Your task to perform on an android device: find snoozed emails in the gmail app Image 0: 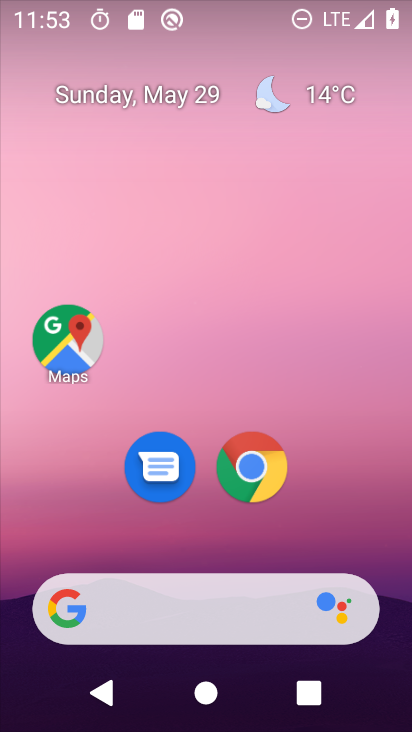
Step 0: drag from (209, 510) to (206, 172)
Your task to perform on an android device: find snoozed emails in the gmail app Image 1: 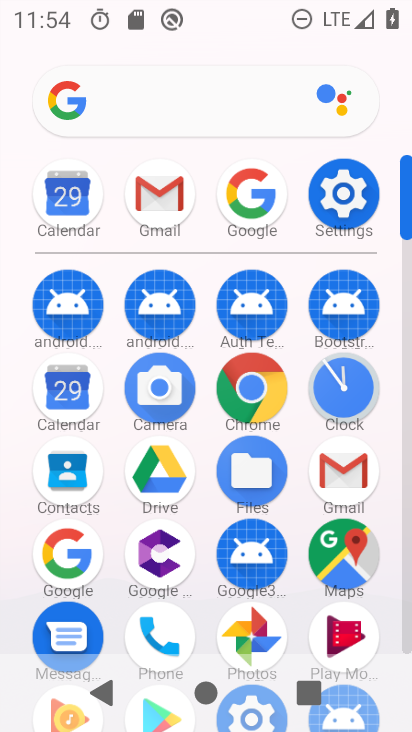
Step 1: click (162, 220)
Your task to perform on an android device: find snoozed emails in the gmail app Image 2: 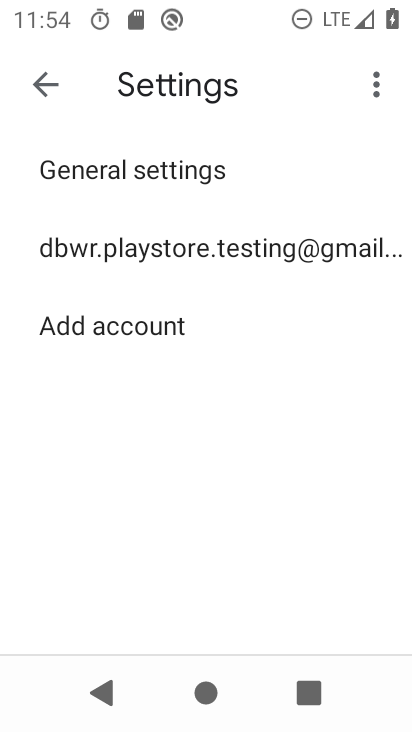
Step 2: click (60, 92)
Your task to perform on an android device: find snoozed emails in the gmail app Image 3: 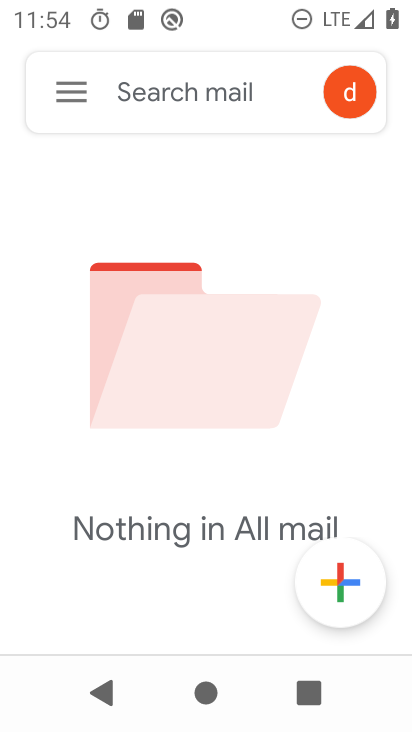
Step 3: click (60, 92)
Your task to perform on an android device: find snoozed emails in the gmail app Image 4: 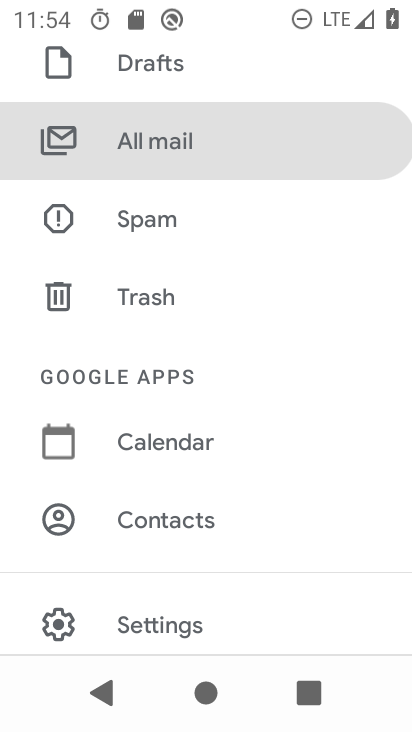
Step 4: drag from (208, 551) to (207, 472)
Your task to perform on an android device: find snoozed emails in the gmail app Image 5: 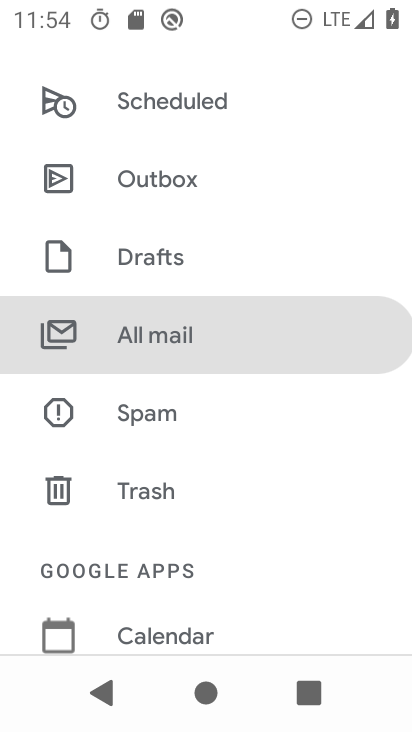
Step 5: drag from (225, 171) to (240, 537)
Your task to perform on an android device: find snoozed emails in the gmail app Image 6: 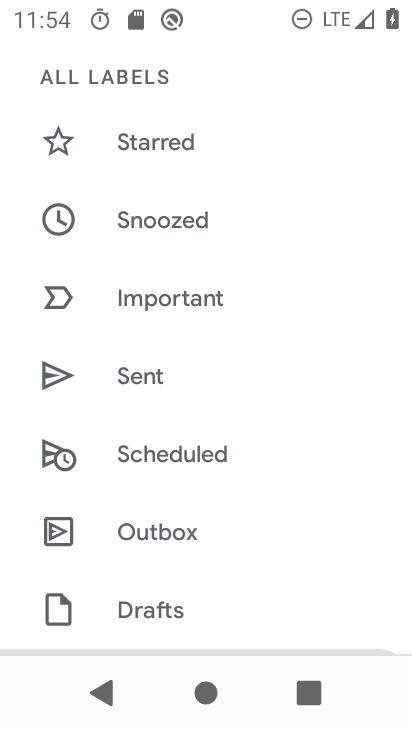
Step 6: click (211, 208)
Your task to perform on an android device: find snoozed emails in the gmail app Image 7: 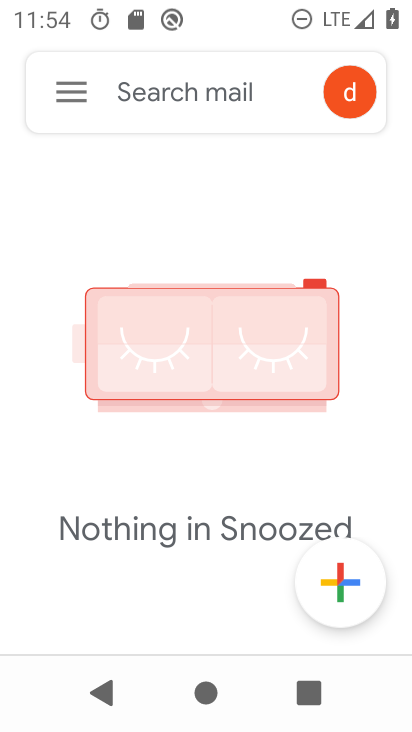
Step 7: task complete